Your task to perform on an android device: Go to Yahoo.com Image 0: 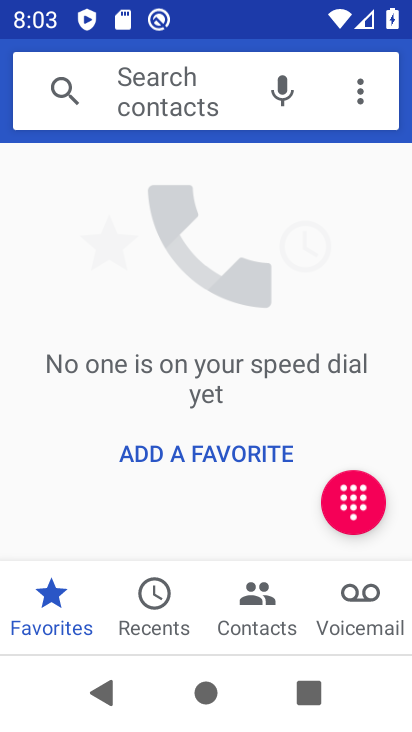
Step 0: press home button
Your task to perform on an android device: Go to Yahoo.com Image 1: 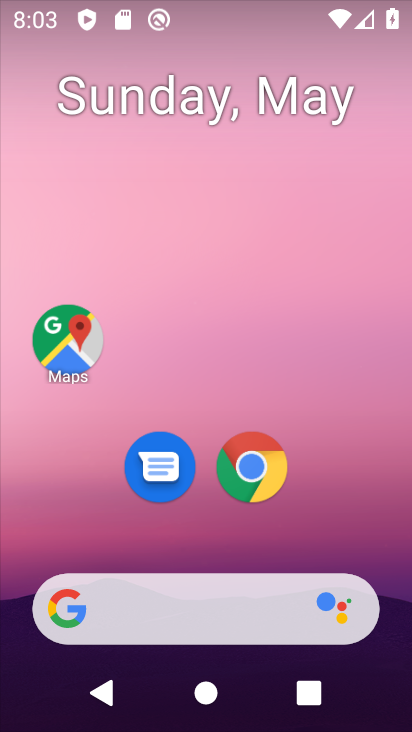
Step 1: click (173, 605)
Your task to perform on an android device: Go to Yahoo.com Image 2: 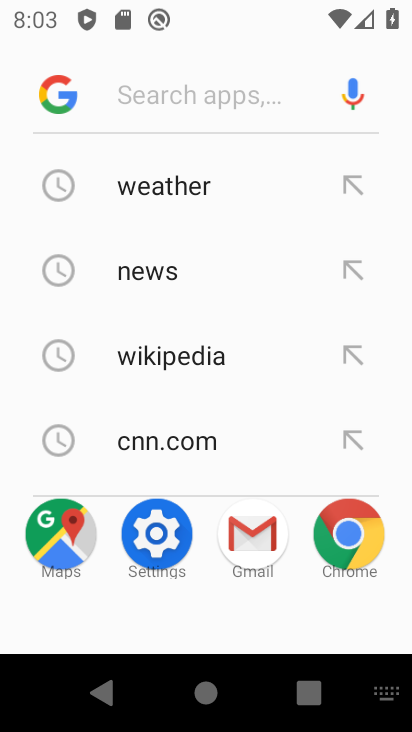
Step 2: type "yahoo.com"
Your task to perform on an android device: Go to Yahoo.com Image 3: 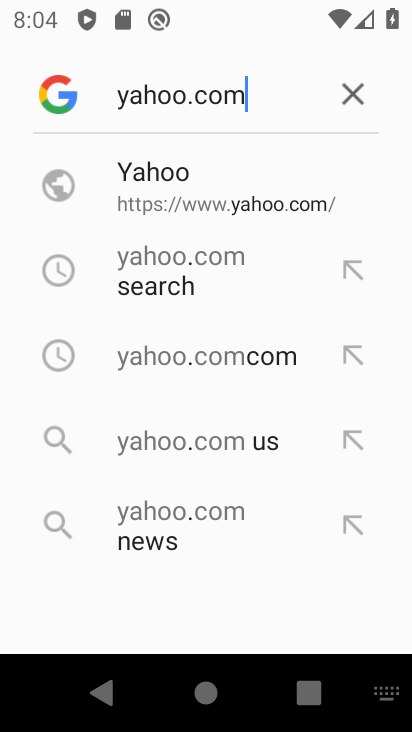
Step 3: click (215, 208)
Your task to perform on an android device: Go to Yahoo.com Image 4: 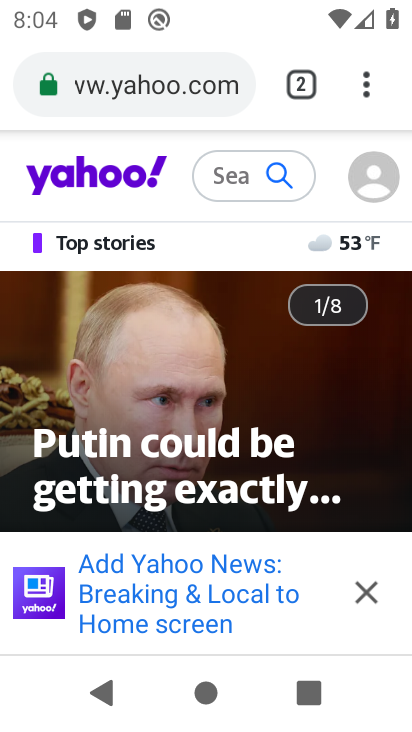
Step 4: task complete